Your task to perform on an android device: manage bookmarks in the chrome app Image 0: 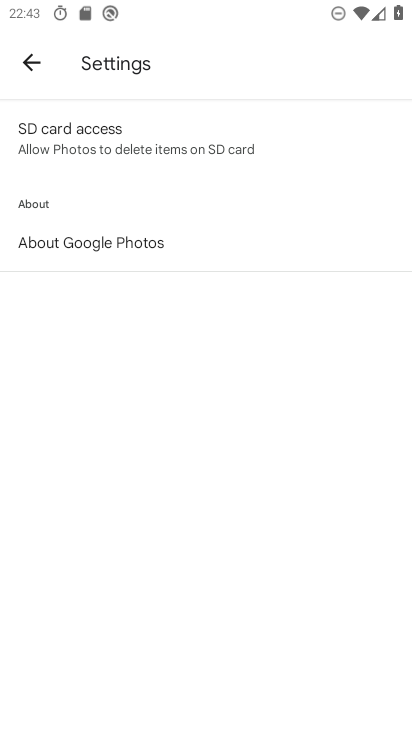
Step 0: press home button
Your task to perform on an android device: manage bookmarks in the chrome app Image 1: 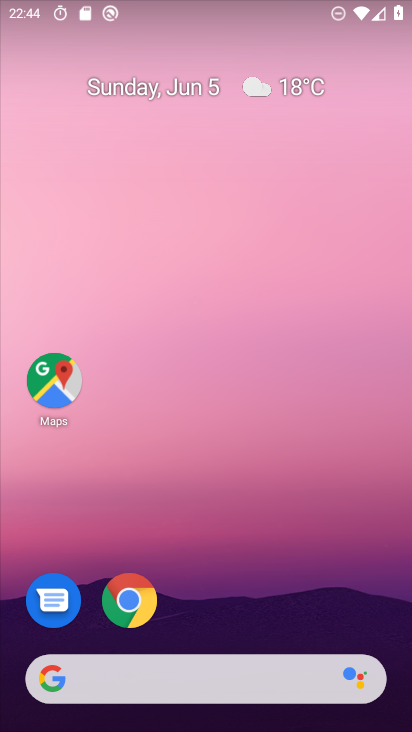
Step 1: click (126, 599)
Your task to perform on an android device: manage bookmarks in the chrome app Image 2: 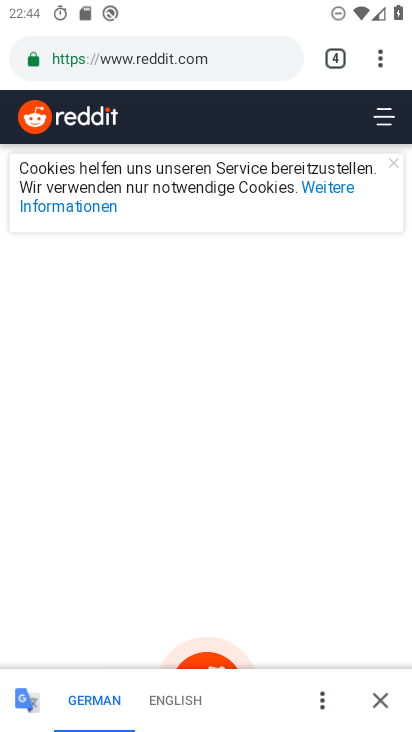
Step 2: drag from (382, 58) to (244, 227)
Your task to perform on an android device: manage bookmarks in the chrome app Image 3: 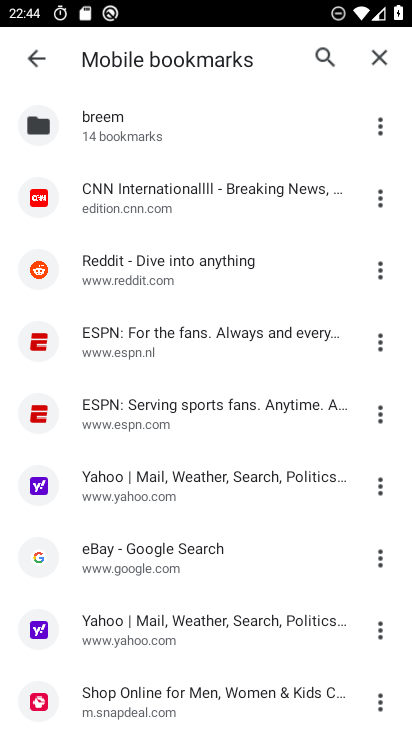
Step 3: click (383, 414)
Your task to perform on an android device: manage bookmarks in the chrome app Image 4: 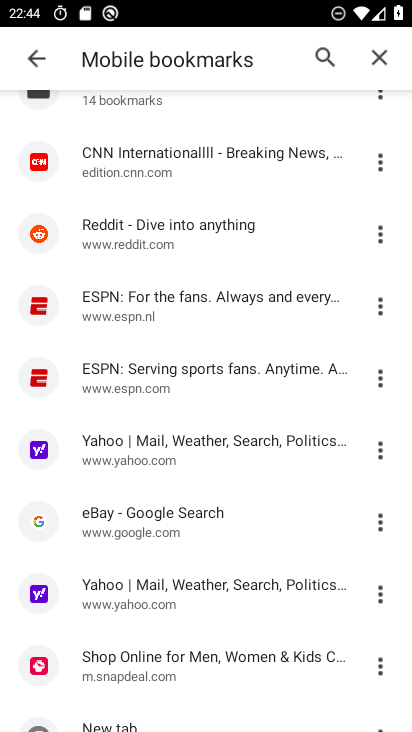
Step 4: click (383, 380)
Your task to perform on an android device: manage bookmarks in the chrome app Image 5: 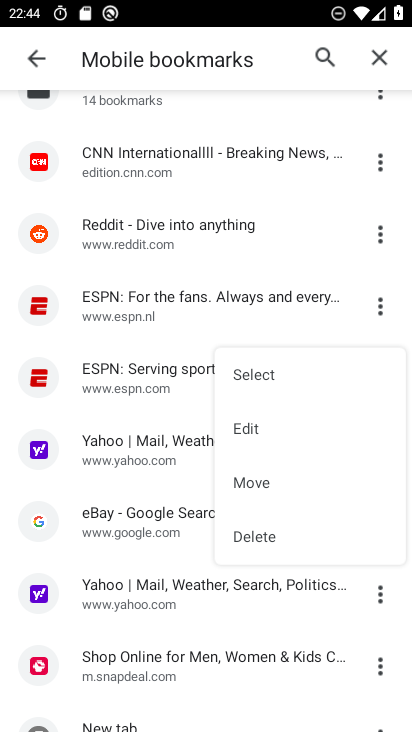
Step 5: click (268, 536)
Your task to perform on an android device: manage bookmarks in the chrome app Image 6: 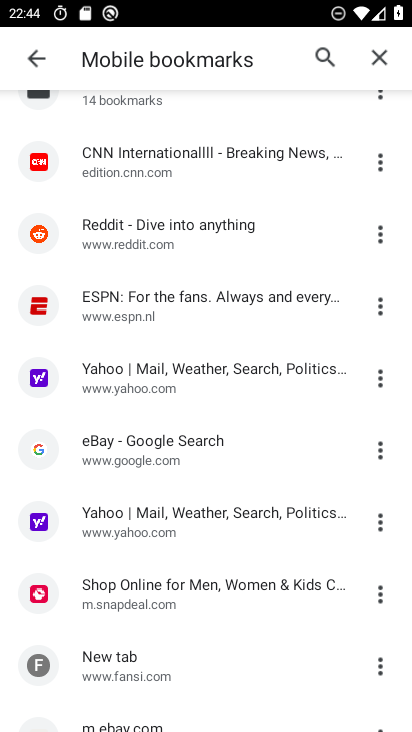
Step 6: task complete